Your task to perform on an android device: Open location settings Image 0: 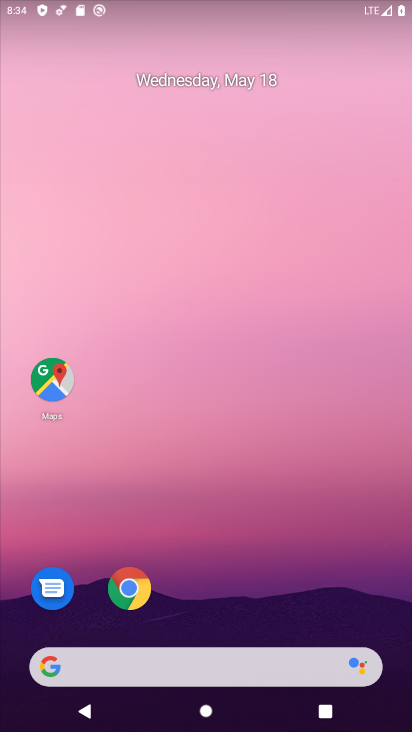
Step 0: drag from (342, 603) to (314, 2)
Your task to perform on an android device: Open location settings Image 1: 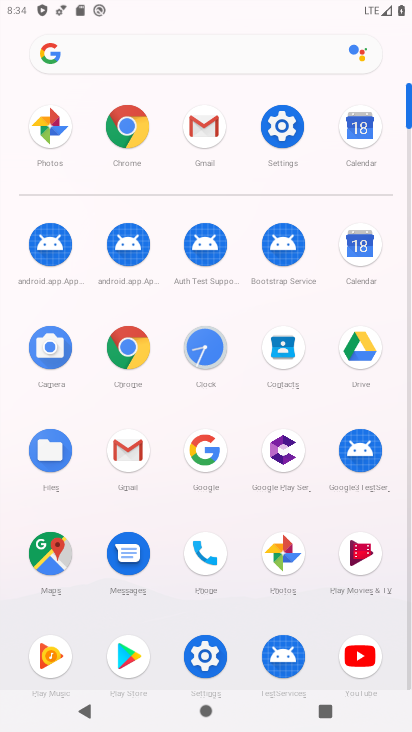
Step 1: click (280, 130)
Your task to perform on an android device: Open location settings Image 2: 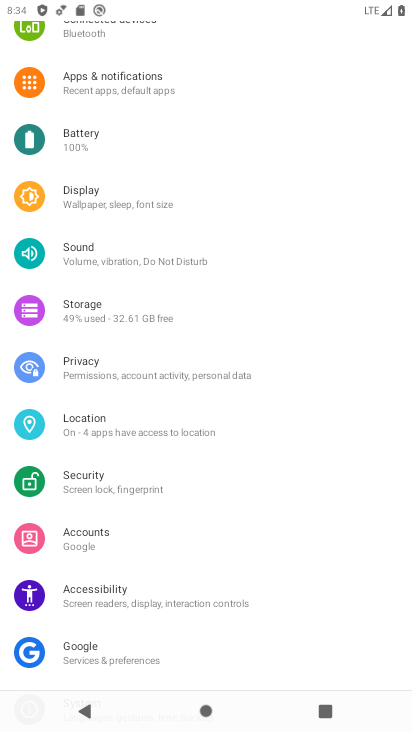
Step 2: click (81, 432)
Your task to perform on an android device: Open location settings Image 3: 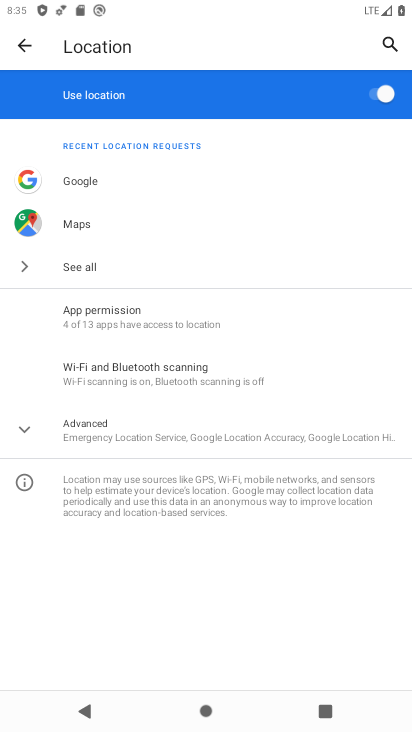
Step 3: task complete